Your task to perform on an android device: Go to Wikipedia Image 0: 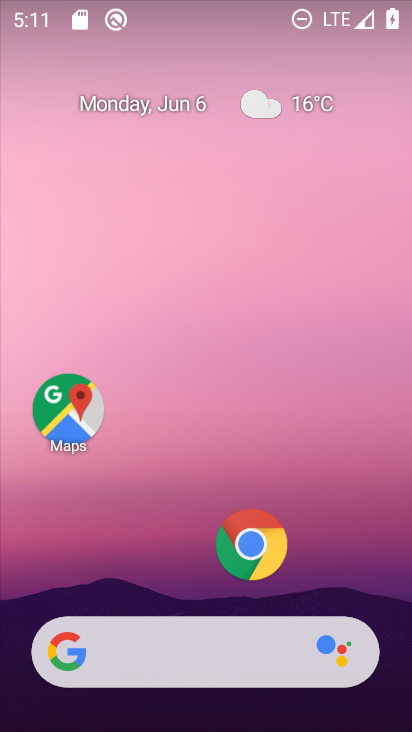
Step 0: press home button
Your task to perform on an android device: Go to Wikipedia Image 1: 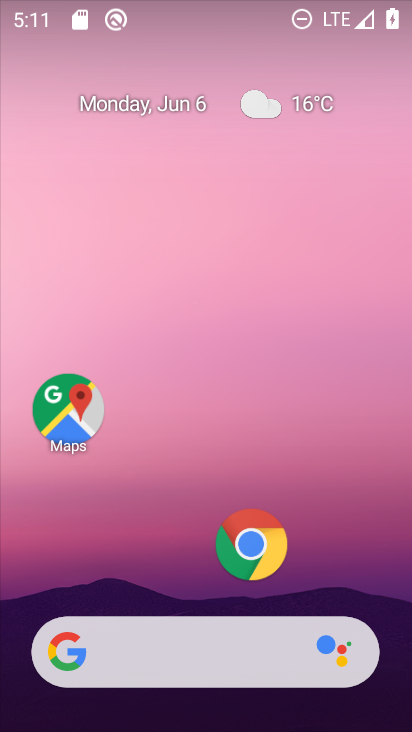
Step 1: click (248, 538)
Your task to perform on an android device: Go to Wikipedia Image 2: 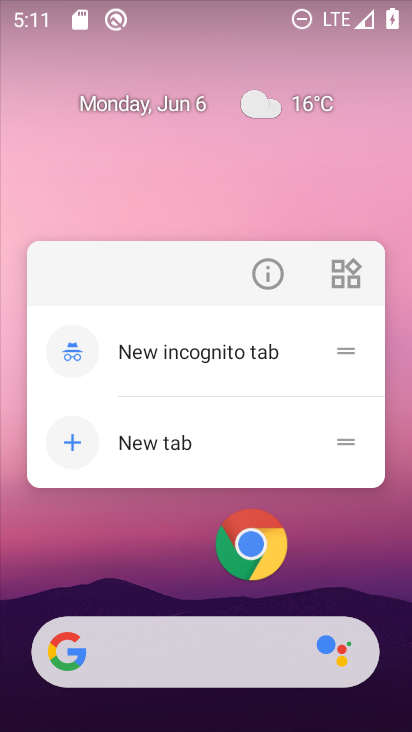
Step 2: click (252, 538)
Your task to perform on an android device: Go to Wikipedia Image 3: 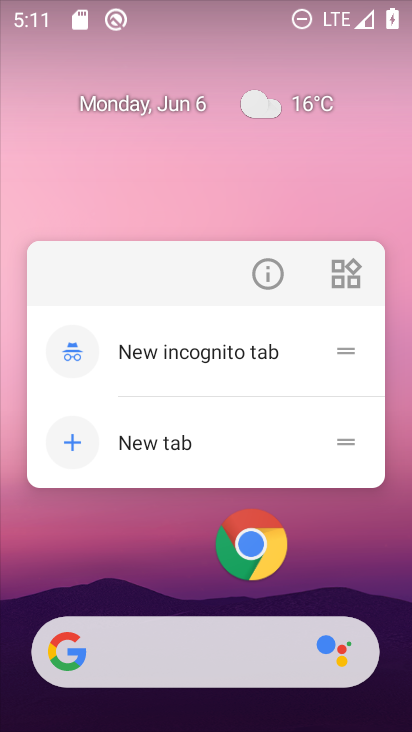
Step 3: click (299, 567)
Your task to perform on an android device: Go to Wikipedia Image 4: 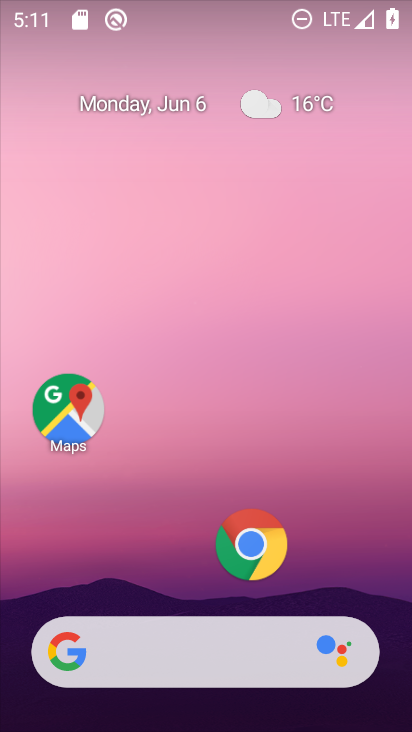
Step 4: click (253, 541)
Your task to perform on an android device: Go to Wikipedia Image 5: 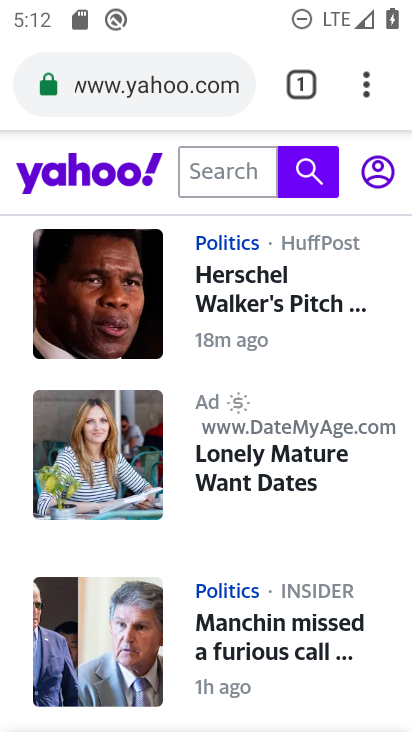
Step 5: click (303, 84)
Your task to perform on an android device: Go to Wikipedia Image 6: 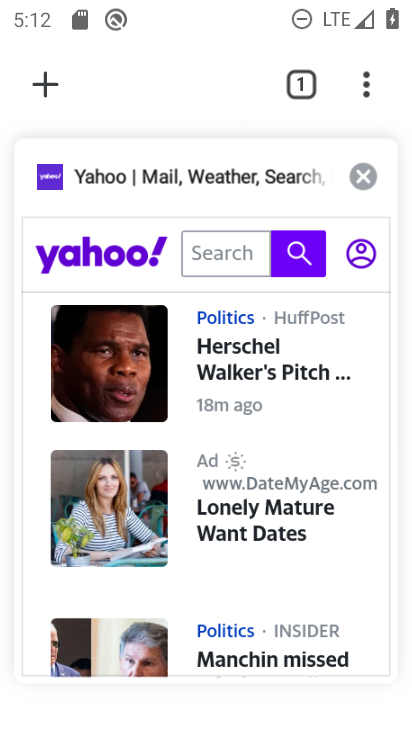
Step 6: click (359, 170)
Your task to perform on an android device: Go to Wikipedia Image 7: 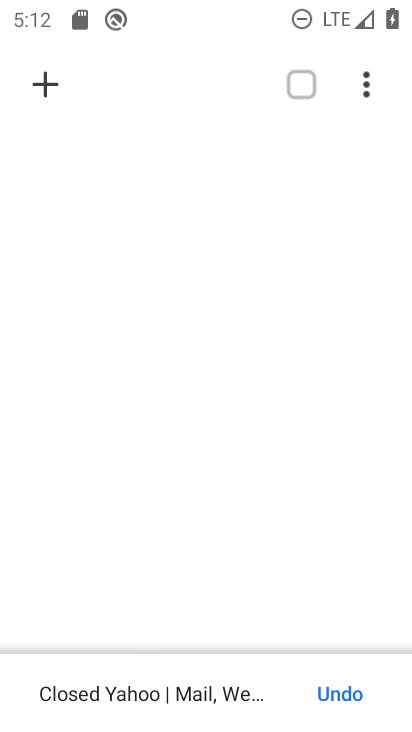
Step 7: click (51, 84)
Your task to perform on an android device: Go to Wikipedia Image 8: 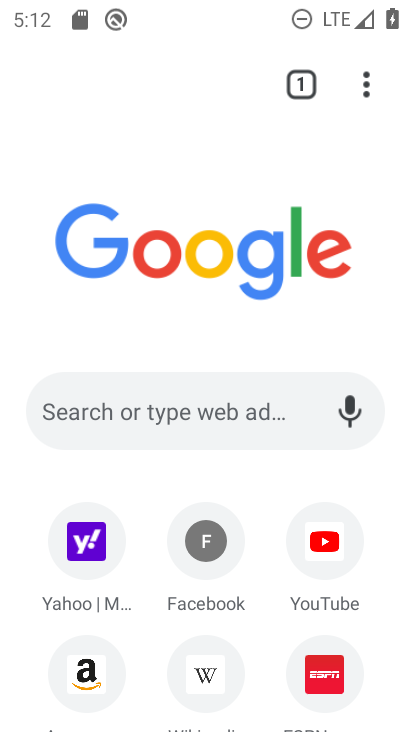
Step 8: click (202, 662)
Your task to perform on an android device: Go to Wikipedia Image 9: 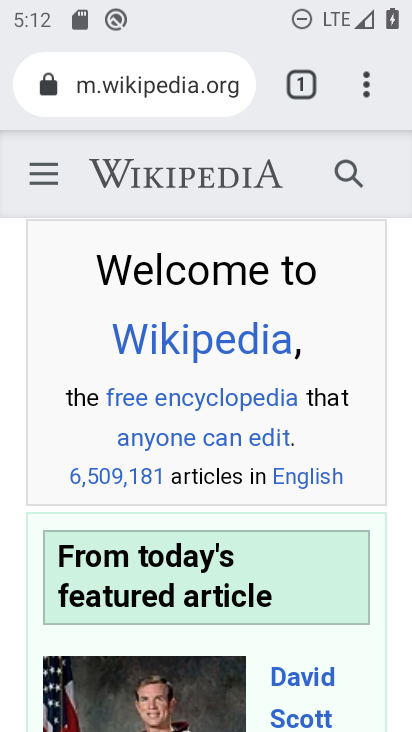
Step 9: task complete